Your task to perform on an android device: Play the last video I watched on Youtube Image 0: 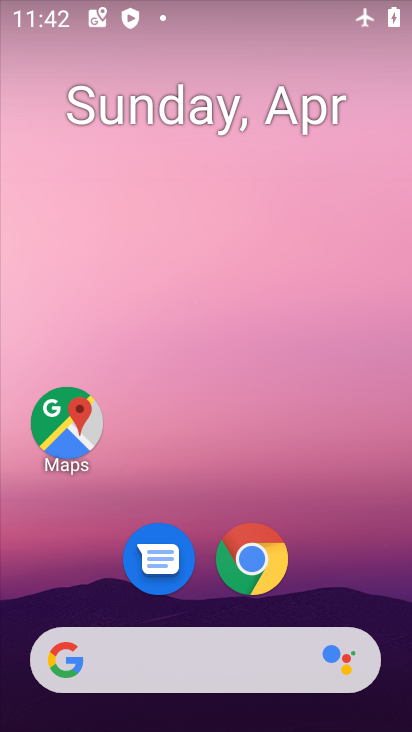
Step 0: drag from (317, 598) to (317, 2)
Your task to perform on an android device: Play the last video I watched on Youtube Image 1: 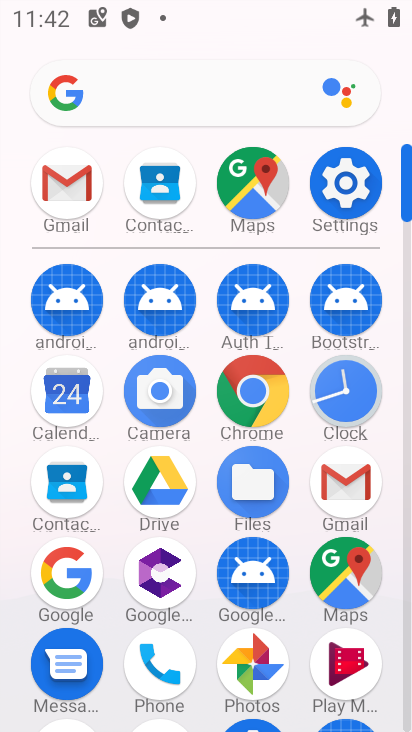
Step 1: drag from (294, 516) to (279, 221)
Your task to perform on an android device: Play the last video I watched on Youtube Image 2: 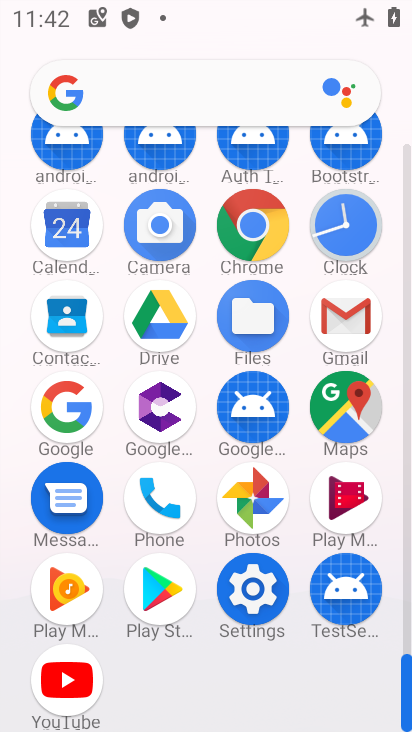
Step 2: click (76, 698)
Your task to perform on an android device: Play the last video I watched on Youtube Image 3: 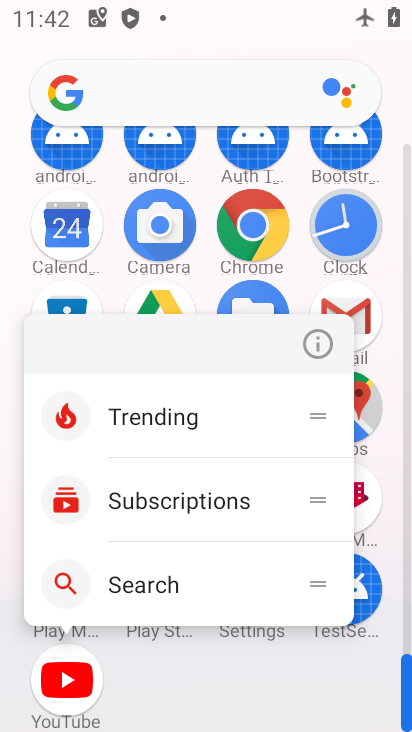
Step 3: click (59, 674)
Your task to perform on an android device: Play the last video I watched on Youtube Image 4: 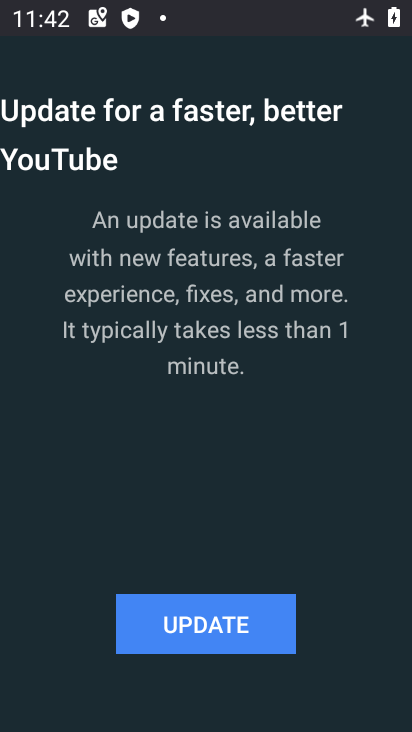
Step 4: click (168, 631)
Your task to perform on an android device: Play the last video I watched on Youtube Image 5: 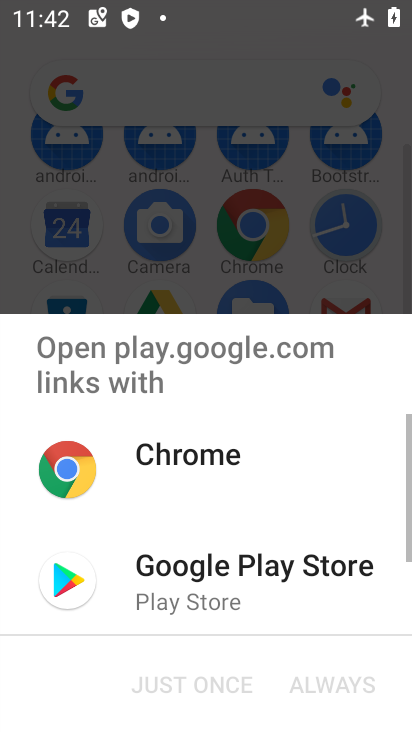
Step 5: click (190, 583)
Your task to perform on an android device: Play the last video I watched on Youtube Image 6: 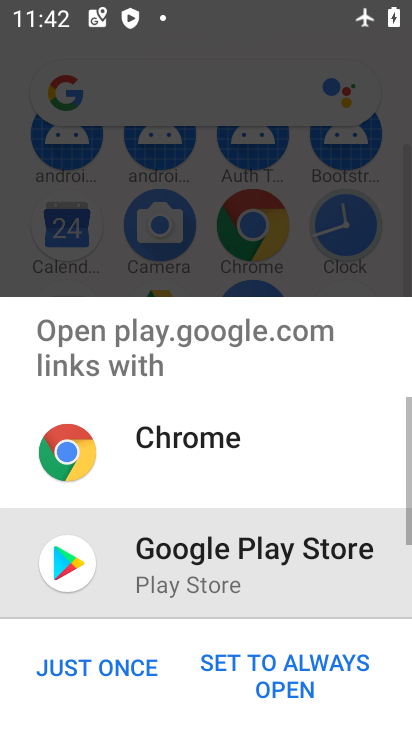
Step 6: click (111, 664)
Your task to perform on an android device: Play the last video I watched on Youtube Image 7: 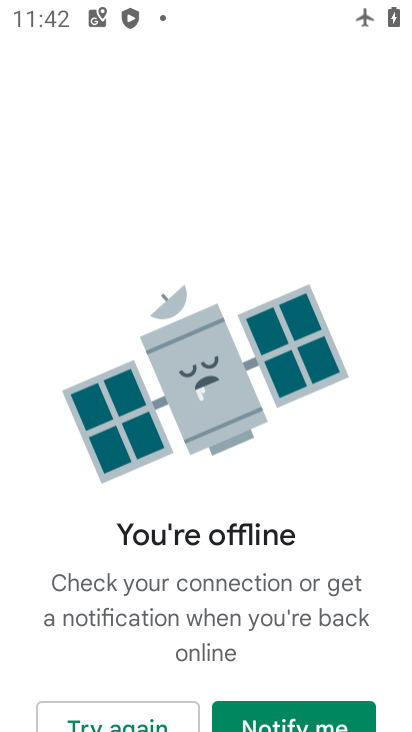
Step 7: click (139, 716)
Your task to perform on an android device: Play the last video I watched on Youtube Image 8: 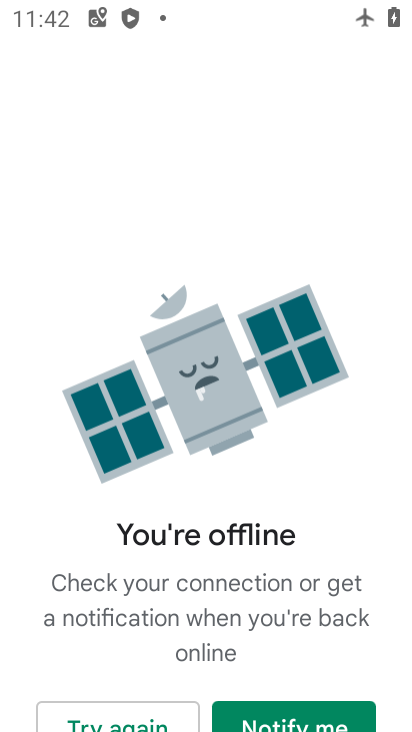
Step 8: task complete